Your task to perform on an android device: set the stopwatch Image 0: 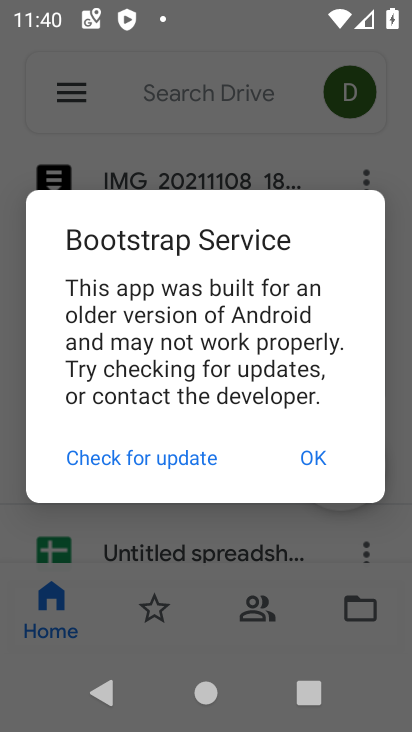
Step 0: press home button
Your task to perform on an android device: set the stopwatch Image 1: 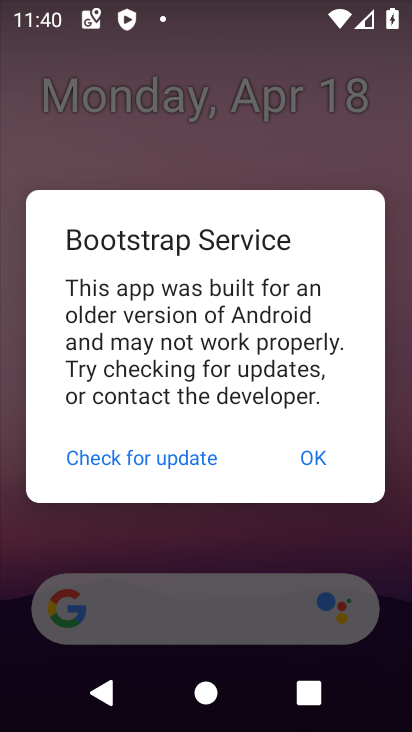
Step 1: click (319, 469)
Your task to perform on an android device: set the stopwatch Image 2: 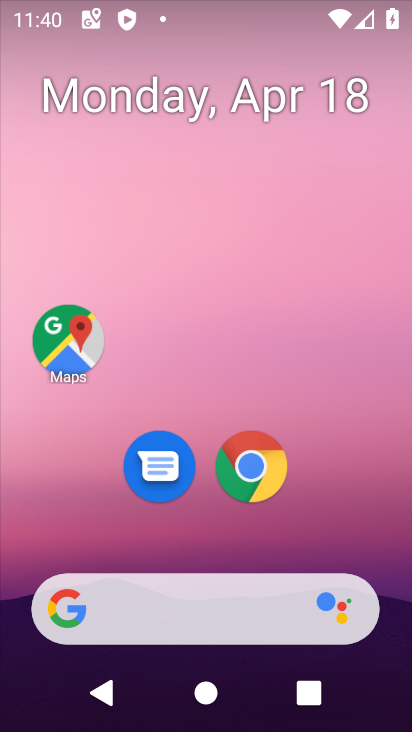
Step 2: drag from (277, 482) to (337, 186)
Your task to perform on an android device: set the stopwatch Image 3: 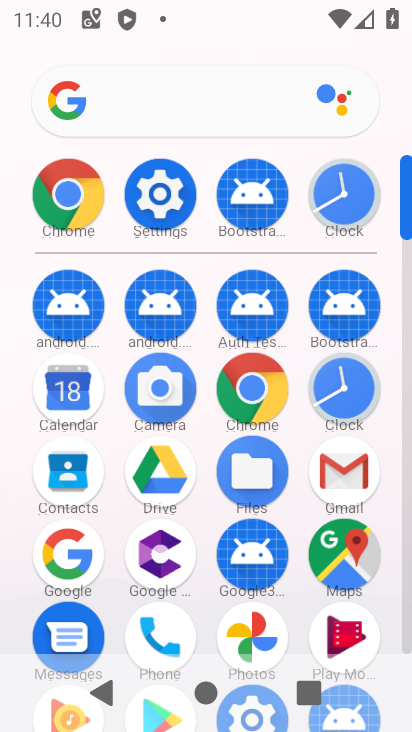
Step 3: click (335, 406)
Your task to perform on an android device: set the stopwatch Image 4: 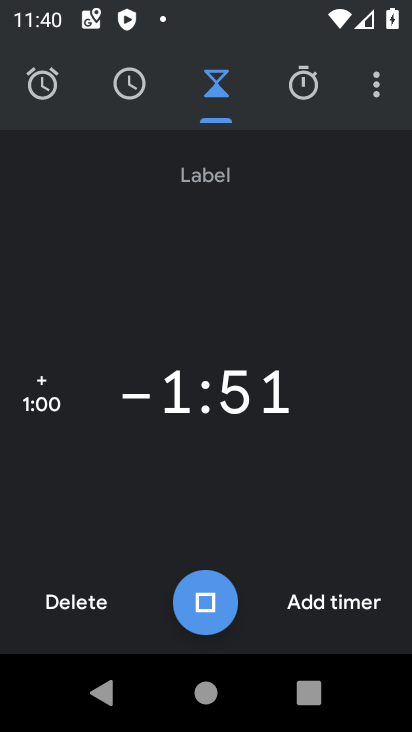
Step 4: click (320, 86)
Your task to perform on an android device: set the stopwatch Image 5: 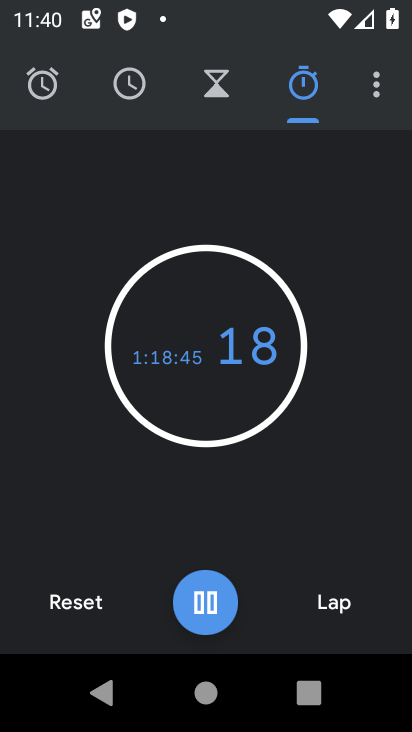
Step 5: click (107, 617)
Your task to perform on an android device: set the stopwatch Image 6: 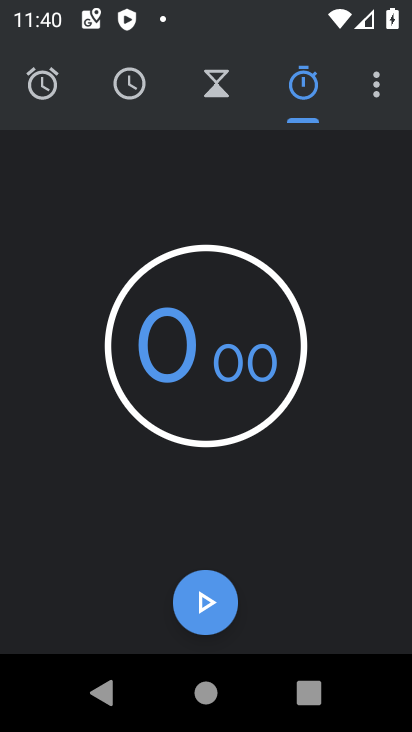
Step 6: click (206, 616)
Your task to perform on an android device: set the stopwatch Image 7: 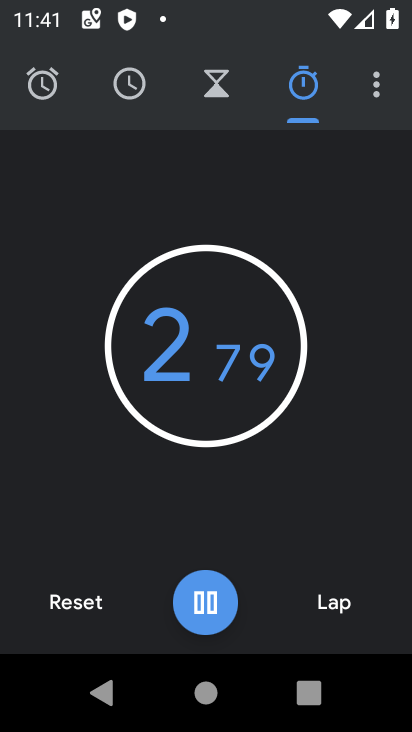
Step 7: task complete